Your task to perform on an android device: Show me the alarms in the clock app Image 0: 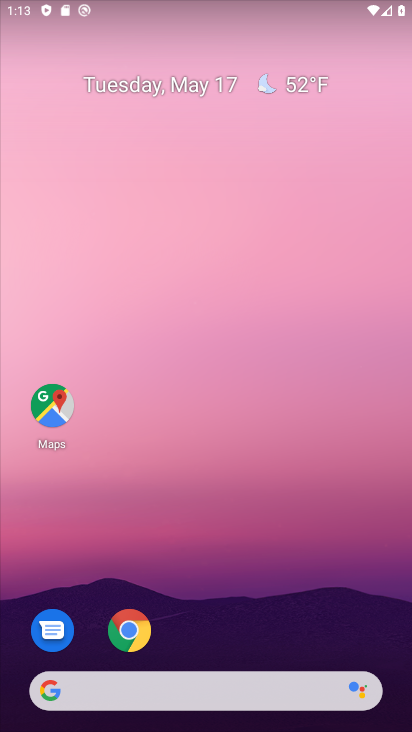
Step 0: drag from (228, 633) to (291, 142)
Your task to perform on an android device: Show me the alarms in the clock app Image 1: 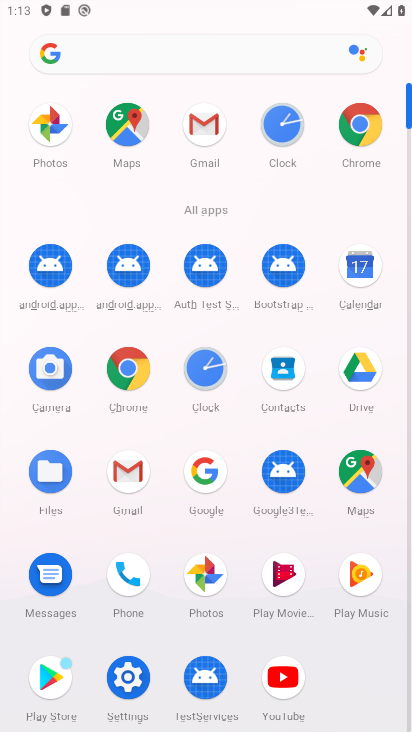
Step 1: click (207, 366)
Your task to perform on an android device: Show me the alarms in the clock app Image 2: 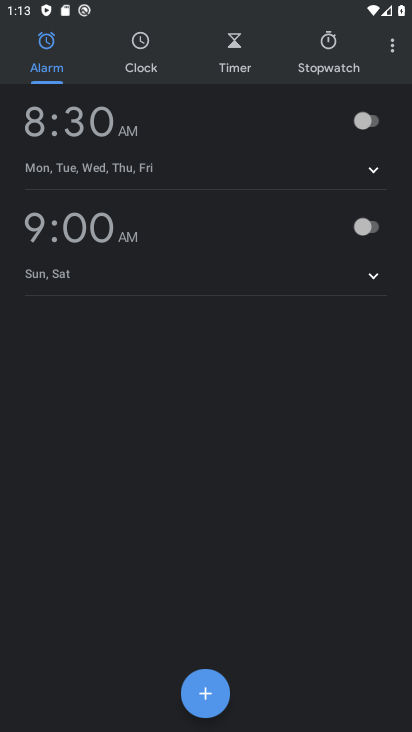
Step 2: task complete